Your task to perform on an android device: Search for vegetarian restaurants on Maps Image 0: 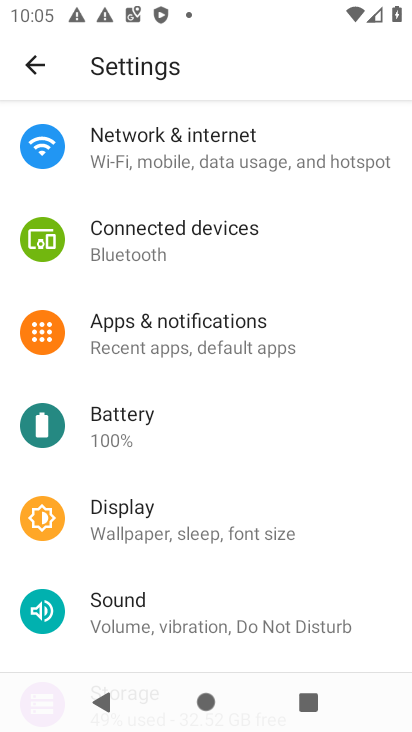
Step 0: press home button
Your task to perform on an android device: Search for vegetarian restaurants on Maps Image 1: 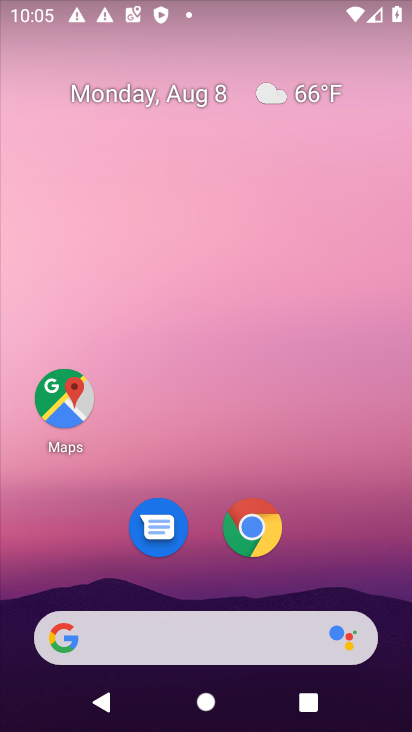
Step 1: click (49, 390)
Your task to perform on an android device: Search for vegetarian restaurants on Maps Image 2: 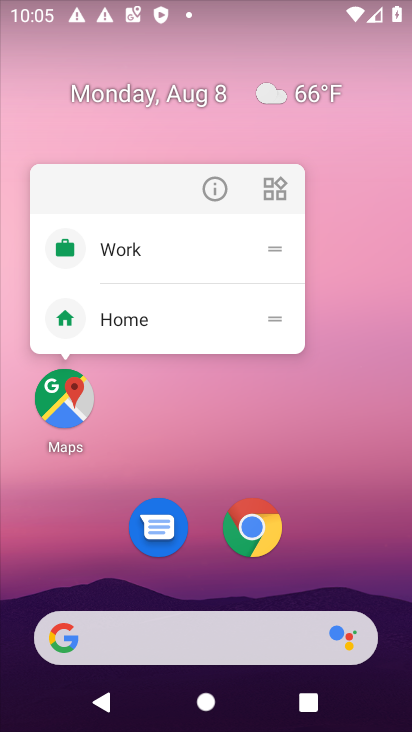
Step 2: click (55, 397)
Your task to perform on an android device: Search for vegetarian restaurants on Maps Image 3: 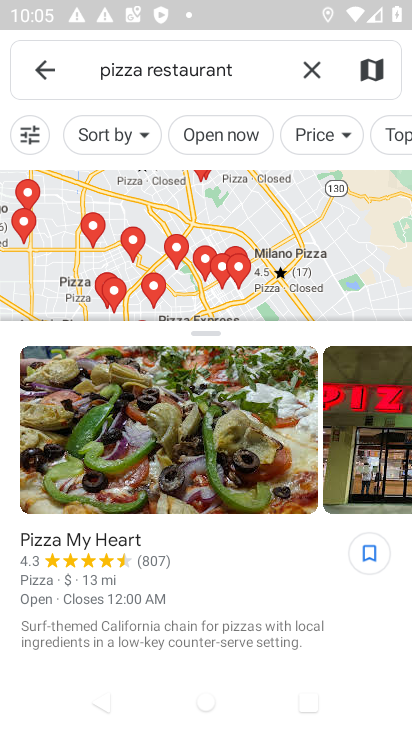
Step 3: click (309, 65)
Your task to perform on an android device: Search for vegetarian restaurants on Maps Image 4: 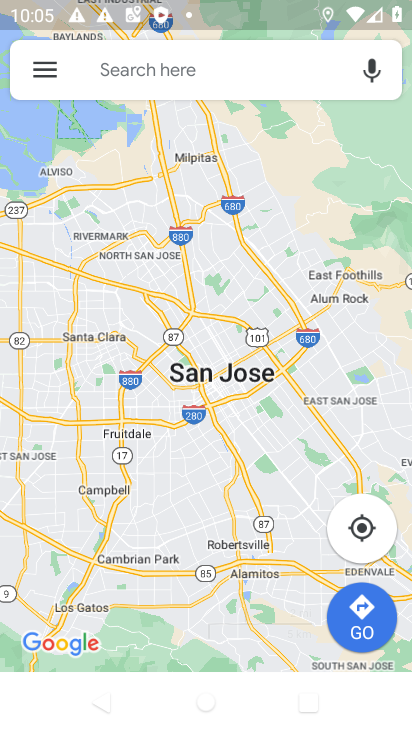
Step 4: type "vegetarian restaurants "
Your task to perform on an android device: Search for vegetarian restaurants on Maps Image 5: 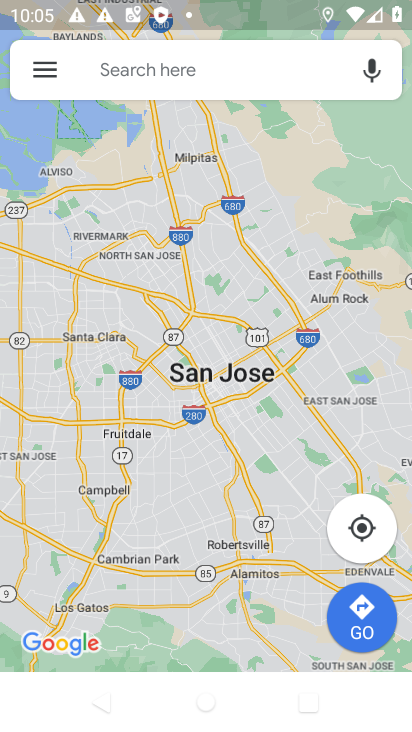
Step 5: click (138, 63)
Your task to perform on an android device: Search for vegetarian restaurants on Maps Image 6: 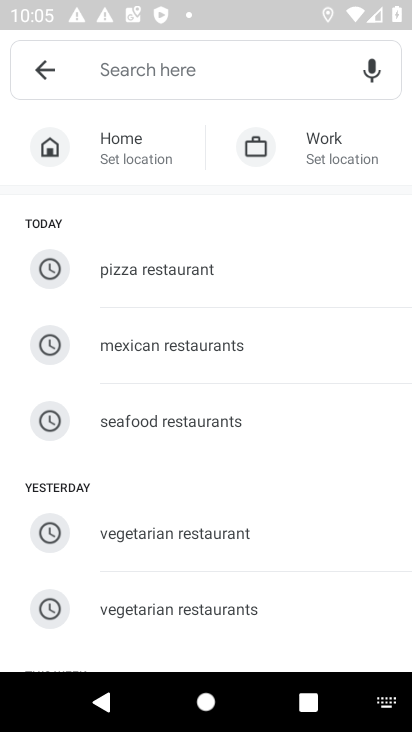
Step 6: type "vegetarian restaurants "
Your task to perform on an android device: Search for vegetarian restaurants on Maps Image 7: 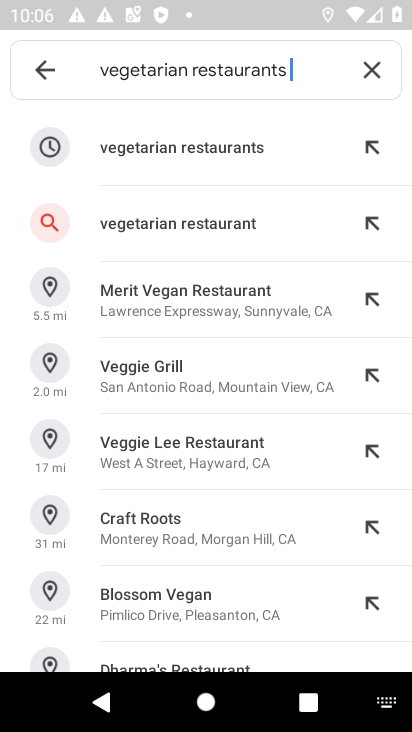
Step 7: click (196, 231)
Your task to perform on an android device: Search for vegetarian restaurants on Maps Image 8: 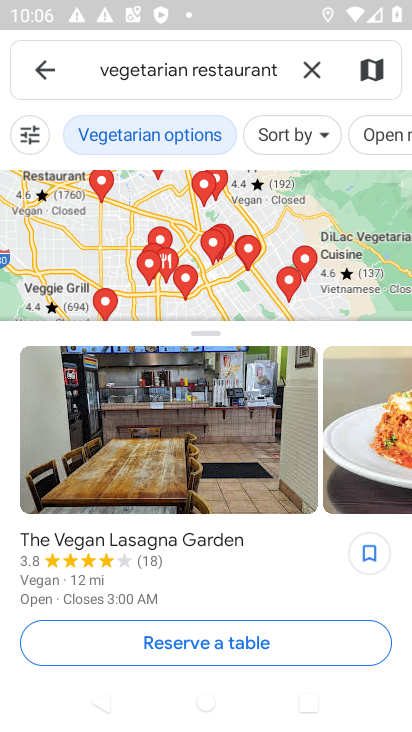
Step 8: task complete